Your task to perform on an android device: turn off location history Image 0: 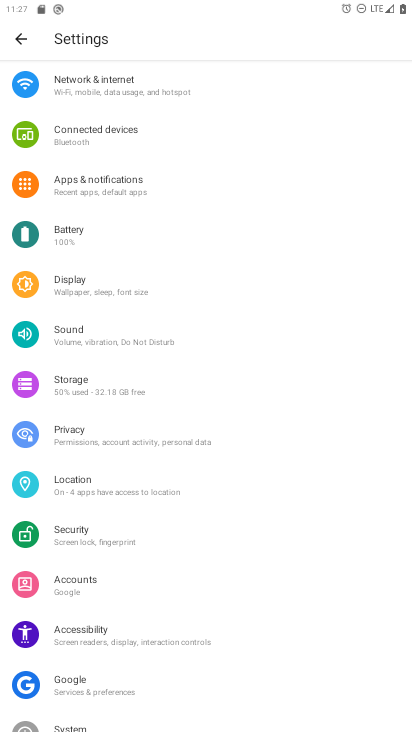
Step 0: click (192, 492)
Your task to perform on an android device: turn off location history Image 1: 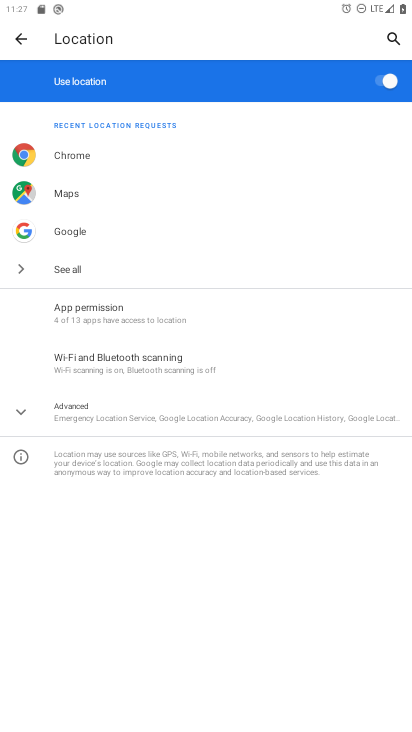
Step 1: click (194, 418)
Your task to perform on an android device: turn off location history Image 2: 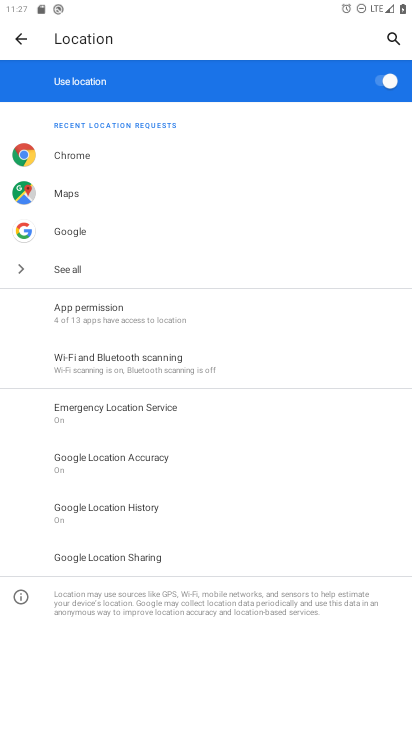
Step 2: click (145, 516)
Your task to perform on an android device: turn off location history Image 3: 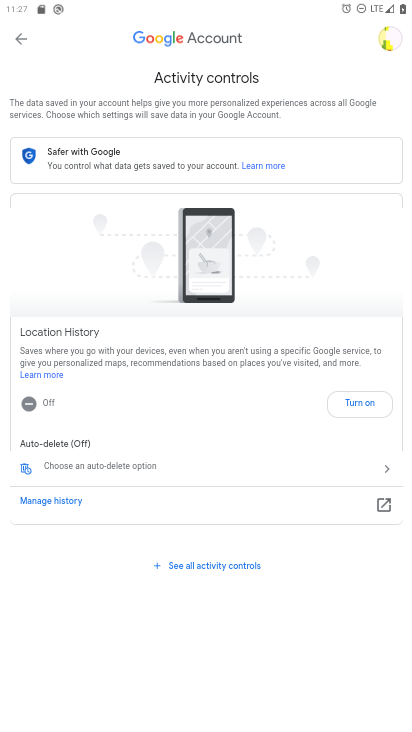
Step 3: task complete